Your task to perform on an android device: turn on showing notifications on the lock screen Image 0: 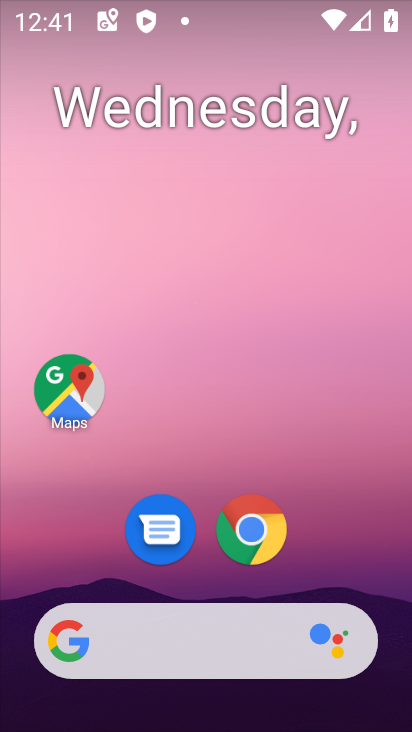
Step 0: drag from (398, 628) to (343, 101)
Your task to perform on an android device: turn on showing notifications on the lock screen Image 1: 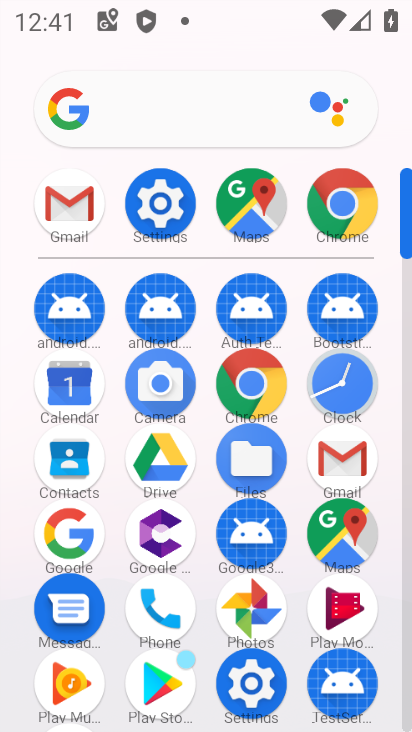
Step 1: click (252, 685)
Your task to perform on an android device: turn on showing notifications on the lock screen Image 2: 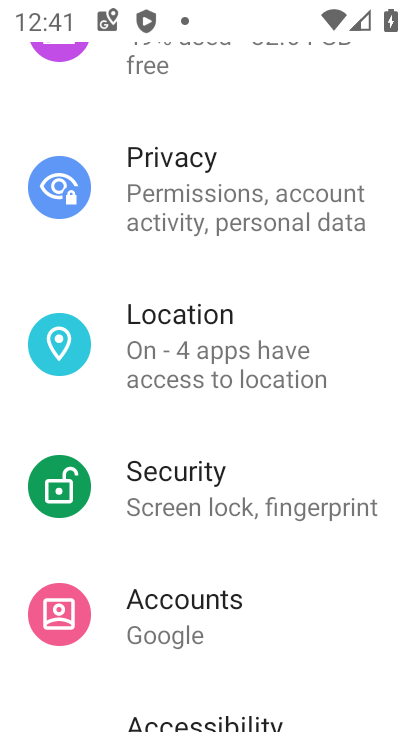
Step 2: drag from (381, 194) to (353, 494)
Your task to perform on an android device: turn on showing notifications on the lock screen Image 3: 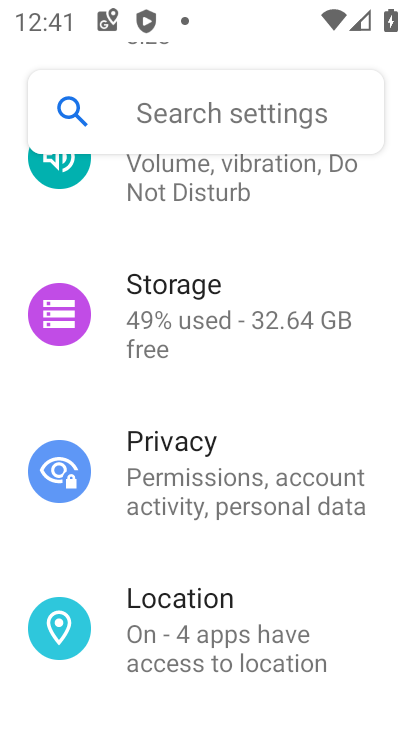
Step 3: drag from (355, 225) to (363, 525)
Your task to perform on an android device: turn on showing notifications on the lock screen Image 4: 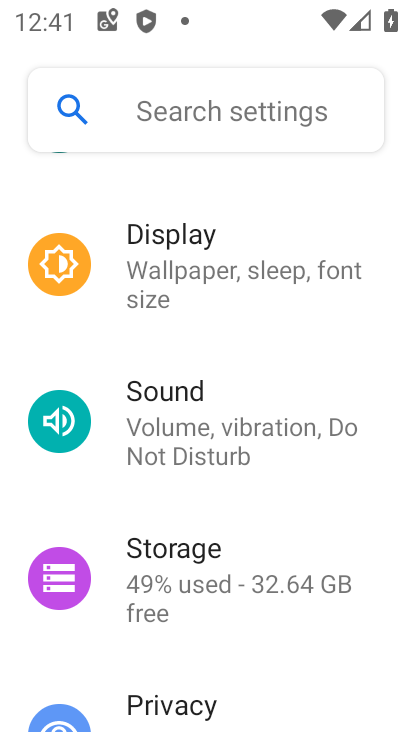
Step 4: drag from (359, 217) to (346, 601)
Your task to perform on an android device: turn on showing notifications on the lock screen Image 5: 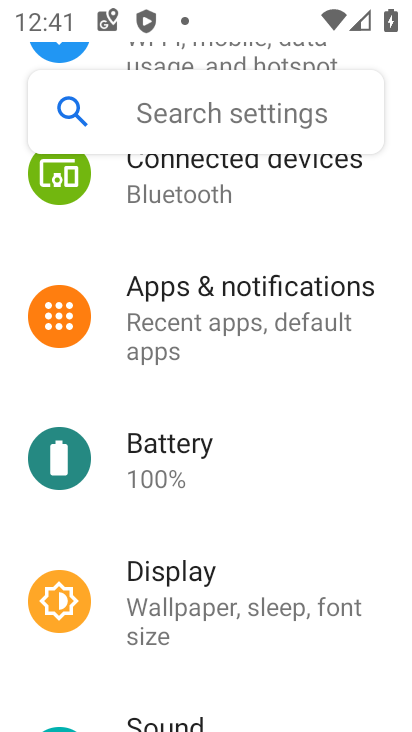
Step 5: click (206, 302)
Your task to perform on an android device: turn on showing notifications on the lock screen Image 6: 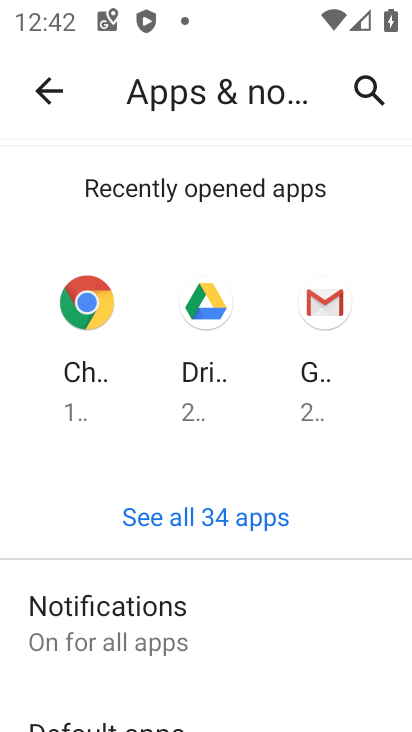
Step 6: click (116, 615)
Your task to perform on an android device: turn on showing notifications on the lock screen Image 7: 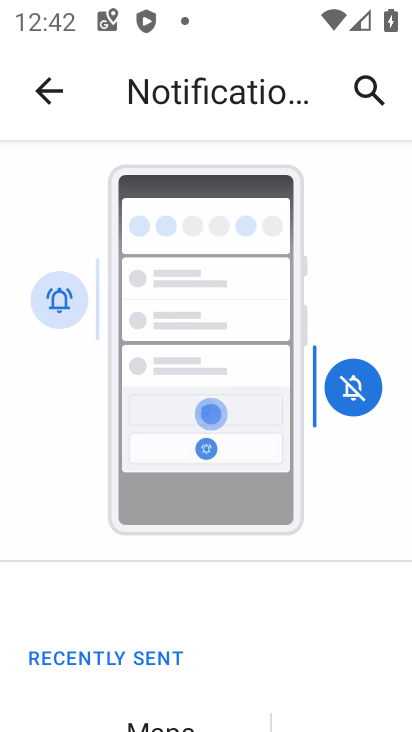
Step 7: drag from (286, 674) to (264, 217)
Your task to perform on an android device: turn on showing notifications on the lock screen Image 8: 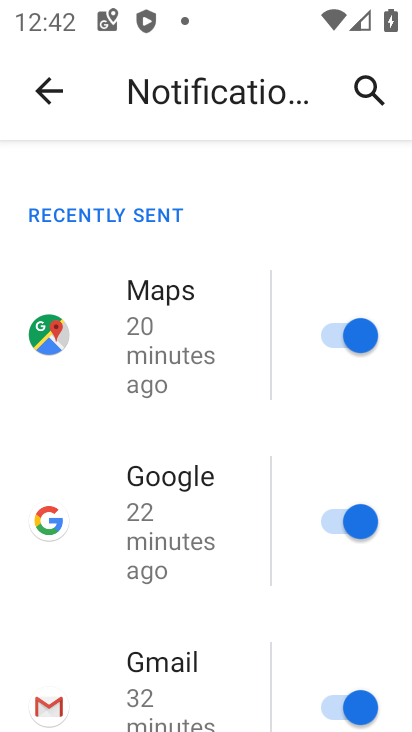
Step 8: drag from (284, 651) to (268, 278)
Your task to perform on an android device: turn on showing notifications on the lock screen Image 9: 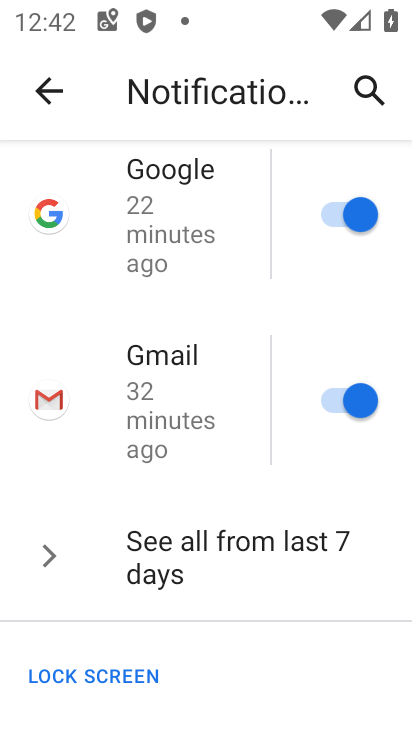
Step 9: drag from (242, 699) to (246, 92)
Your task to perform on an android device: turn on showing notifications on the lock screen Image 10: 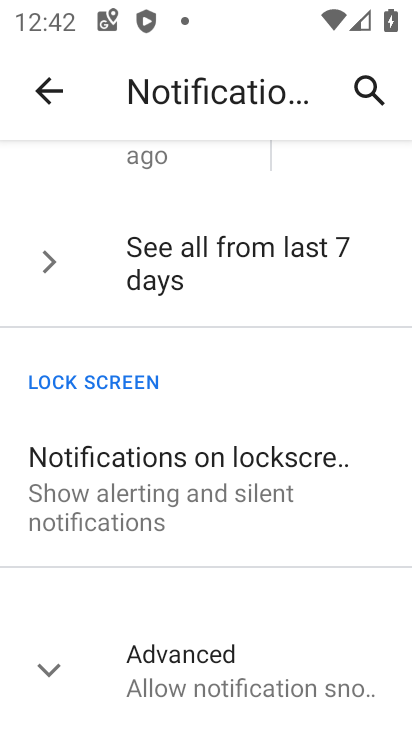
Step 10: click (123, 483)
Your task to perform on an android device: turn on showing notifications on the lock screen Image 11: 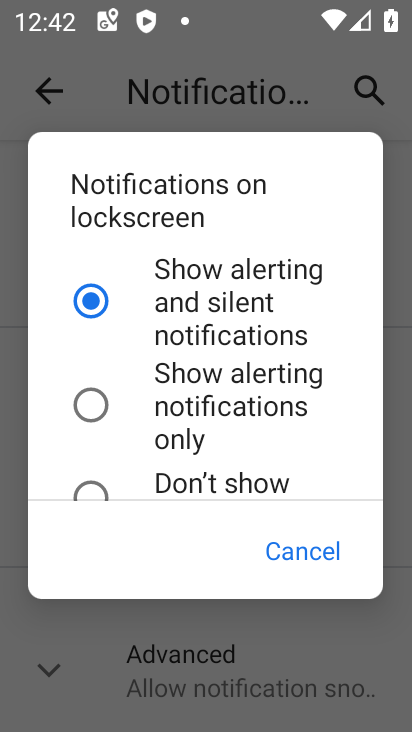
Step 11: task complete